Your task to perform on an android device: turn off notifications settings in the gmail app Image 0: 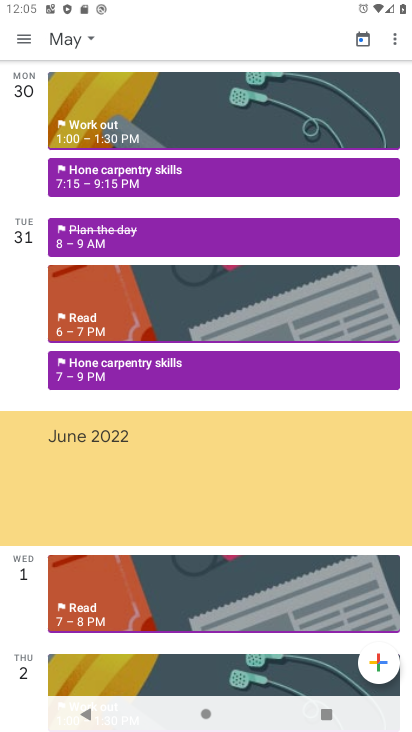
Step 0: press home button
Your task to perform on an android device: turn off notifications settings in the gmail app Image 1: 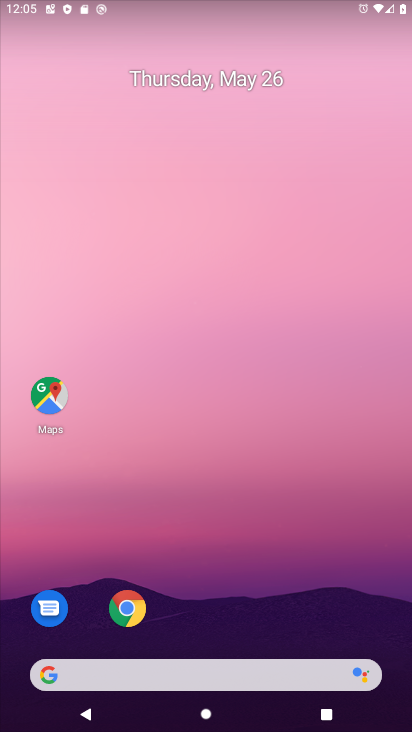
Step 1: drag from (240, 695) to (236, 59)
Your task to perform on an android device: turn off notifications settings in the gmail app Image 2: 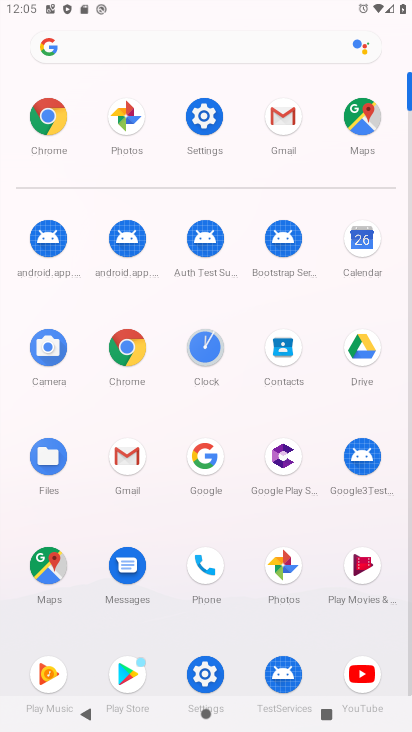
Step 2: click (125, 457)
Your task to perform on an android device: turn off notifications settings in the gmail app Image 3: 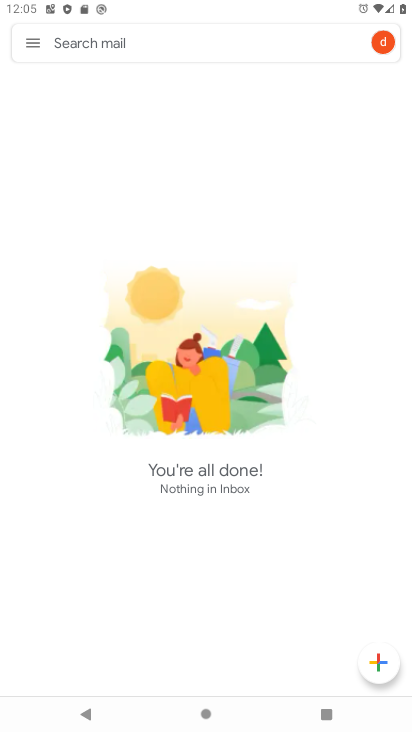
Step 3: click (28, 42)
Your task to perform on an android device: turn off notifications settings in the gmail app Image 4: 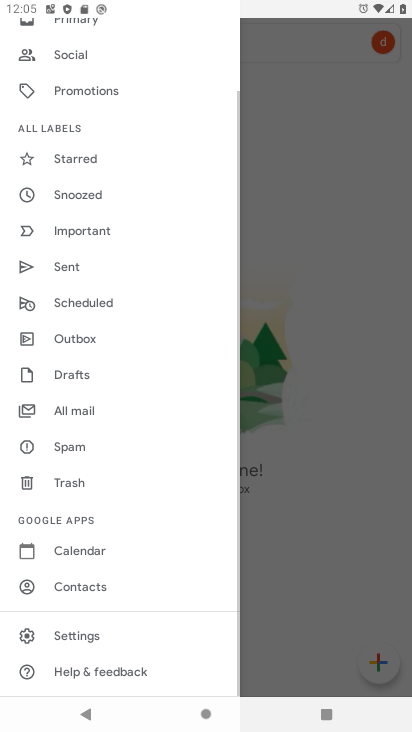
Step 4: click (74, 627)
Your task to perform on an android device: turn off notifications settings in the gmail app Image 5: 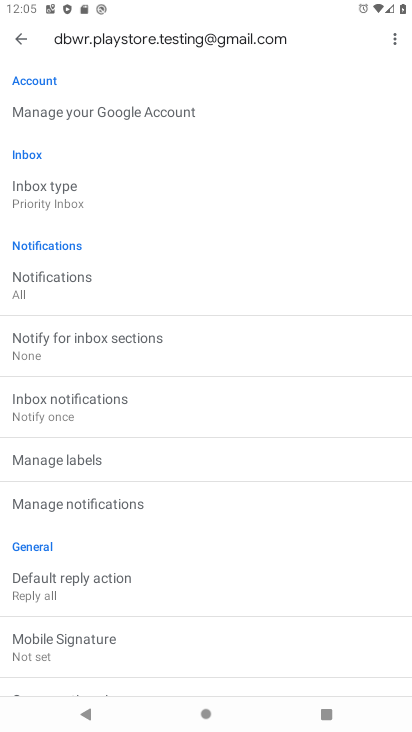
Step 5: click (50, 278)
Your task to perform on an android device: turn off notifications settings in the gmail app Image 6: 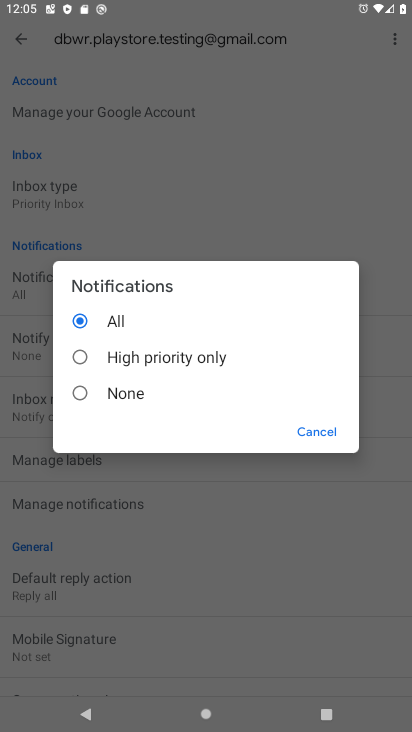
Step 6: click (76, 395)
Your task to perform on an android device: turn off notifications settings in the gmail app Image 7: 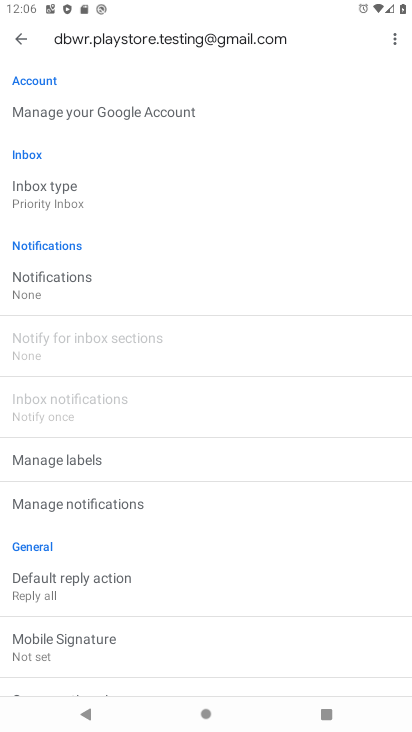
Step 7: task complete